Your task to perform on an android device: View the shopping cart on ebay. Search for usb-b on ebay, select the first entry, and add it to the cart. Image 0: 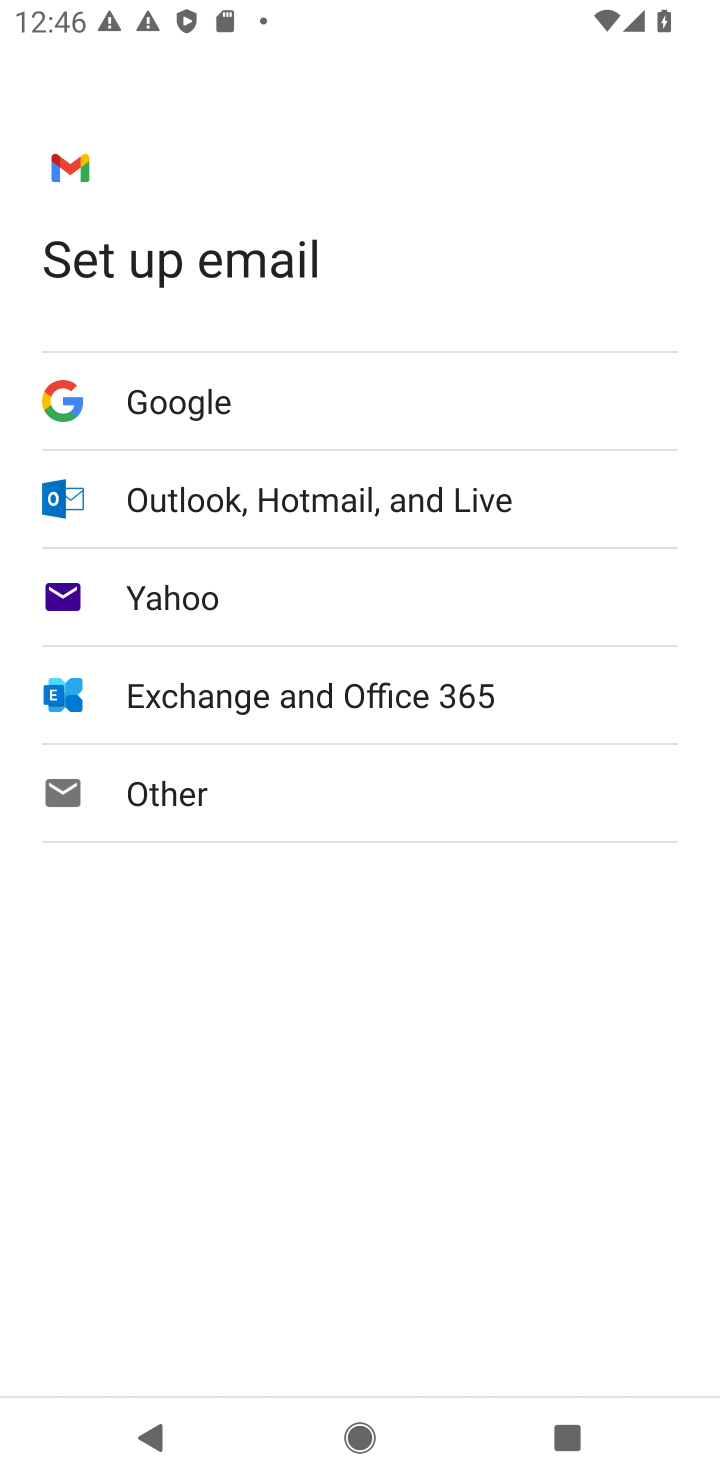
Step 0: press home button
Your task to perform on an android device: View the shopping cart on ebay. Search for usb-b on ebay, select the first entry, and add it to the cart. Image 1: 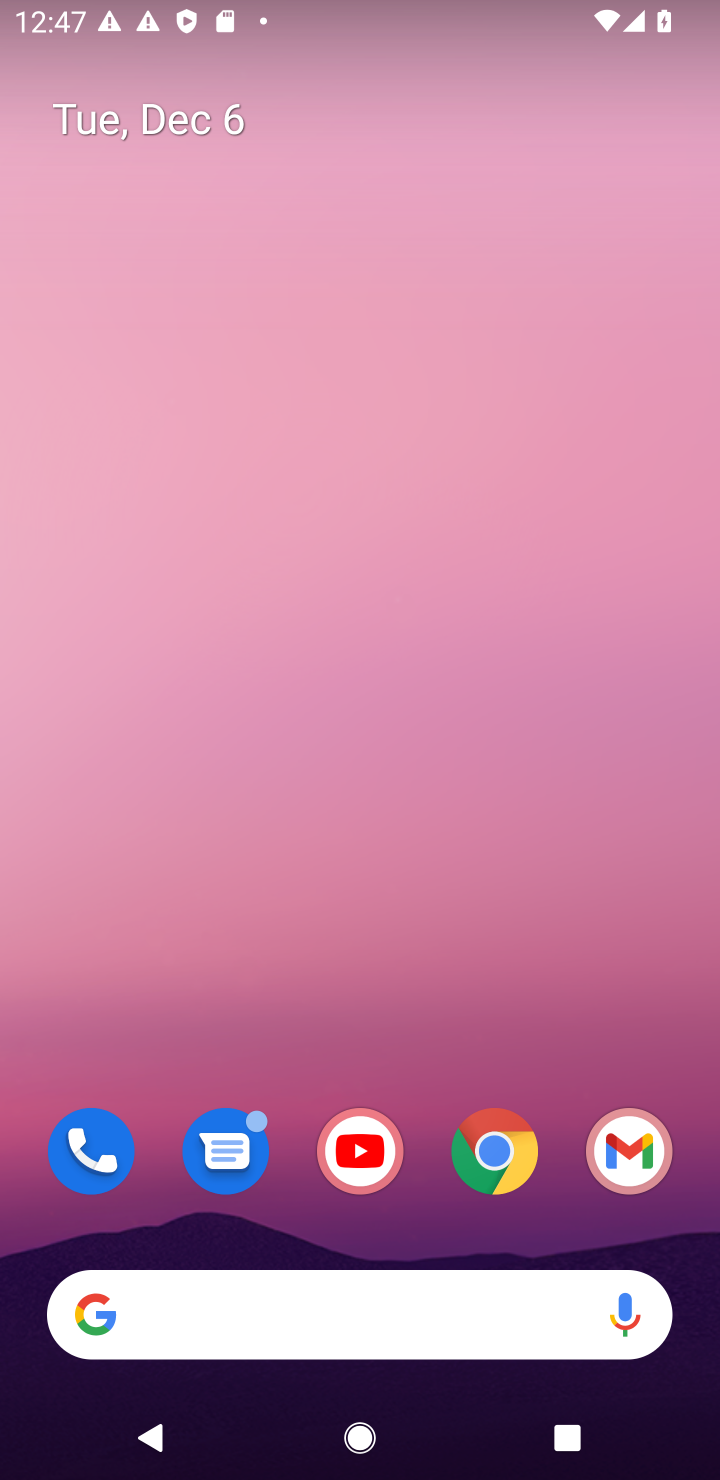
Step 1: click (506, 1157)
Your task to perform on an android device: View the shopping cart on ebay. Search for usb-b on ebay, select the first entry, and add it to the cart. Image 2: 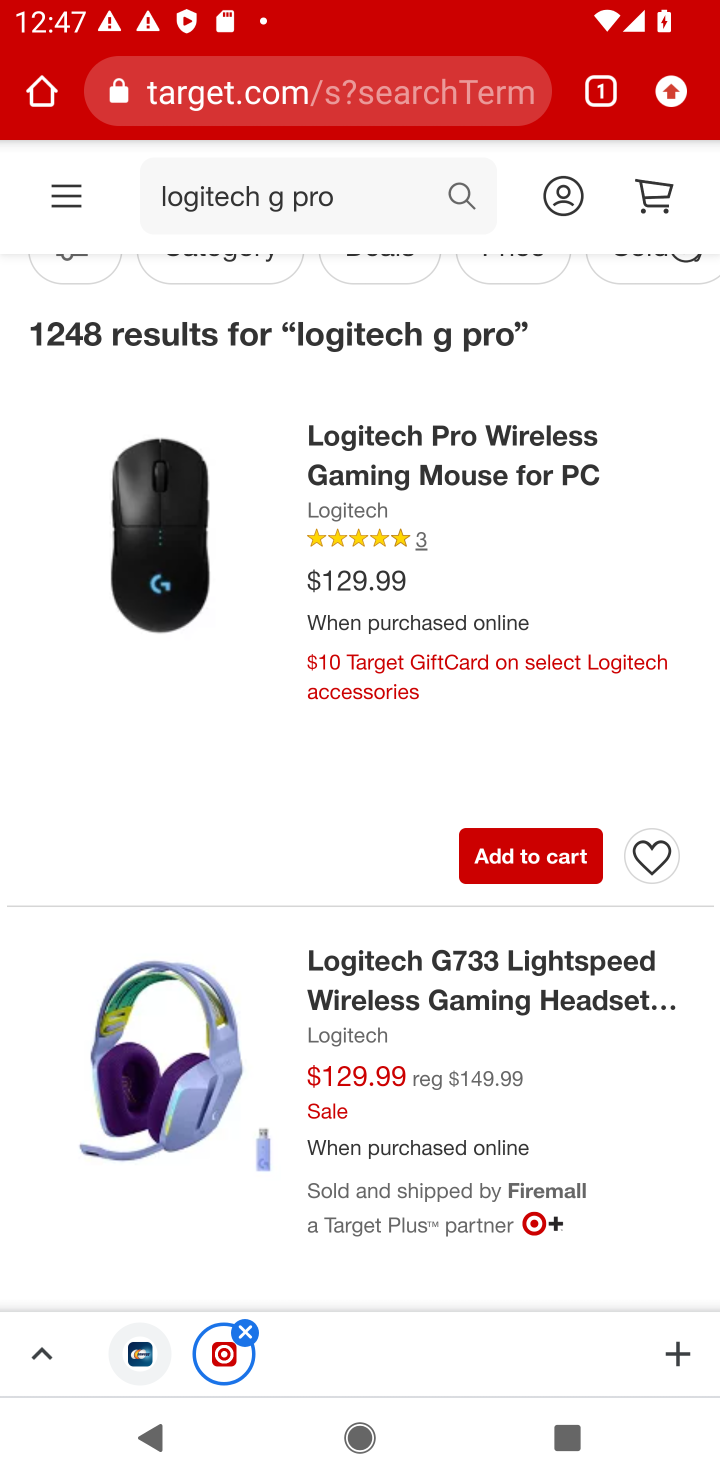
Step 2: click (285, 96)
Your task to perform on an android device: View the shopping cart on ebay. Search for usb-b on ebay, select the first entry, and add it to the cart. Image 3: 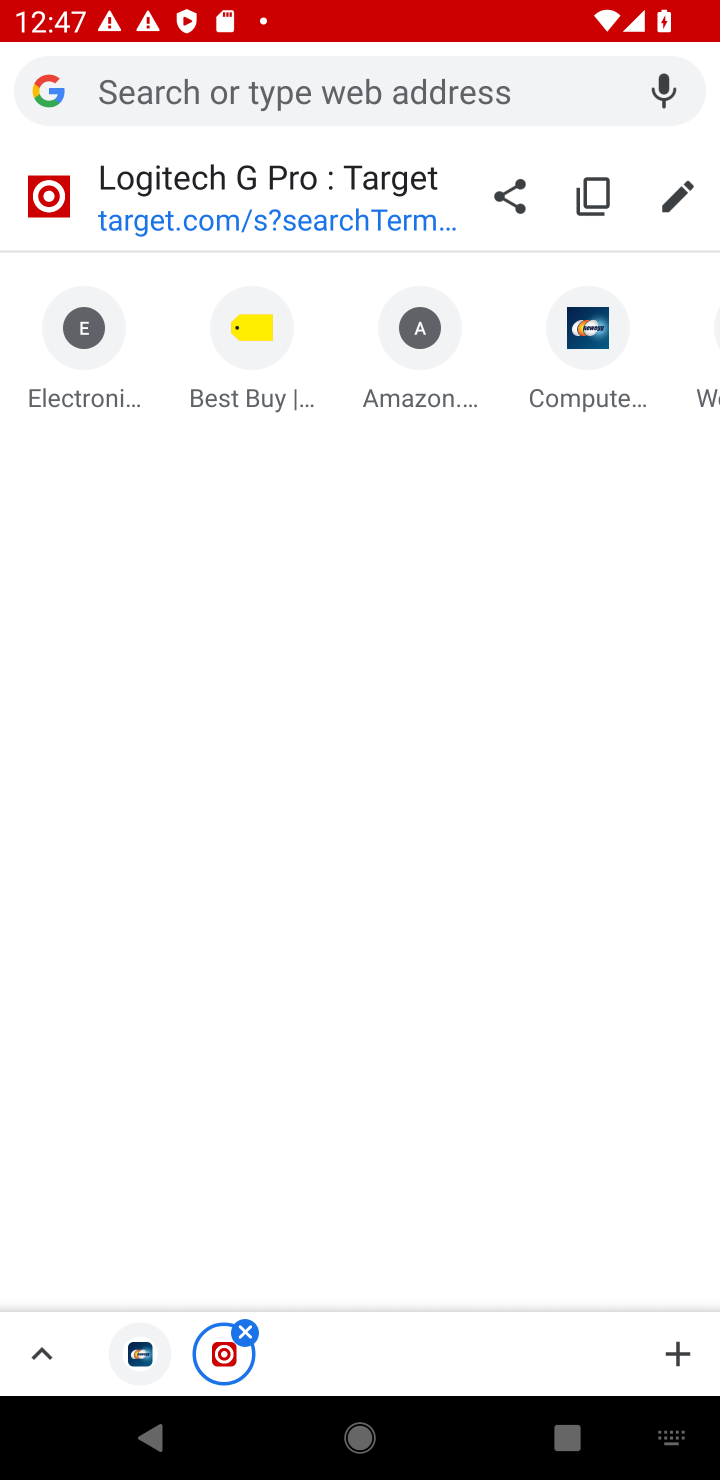
Step 3: type "ebay.com"
Your task to perform on an android device: View the shopping cart on ebay. Search for usb-b on ebay, select the first entry, and add it to the cart. Image 4: 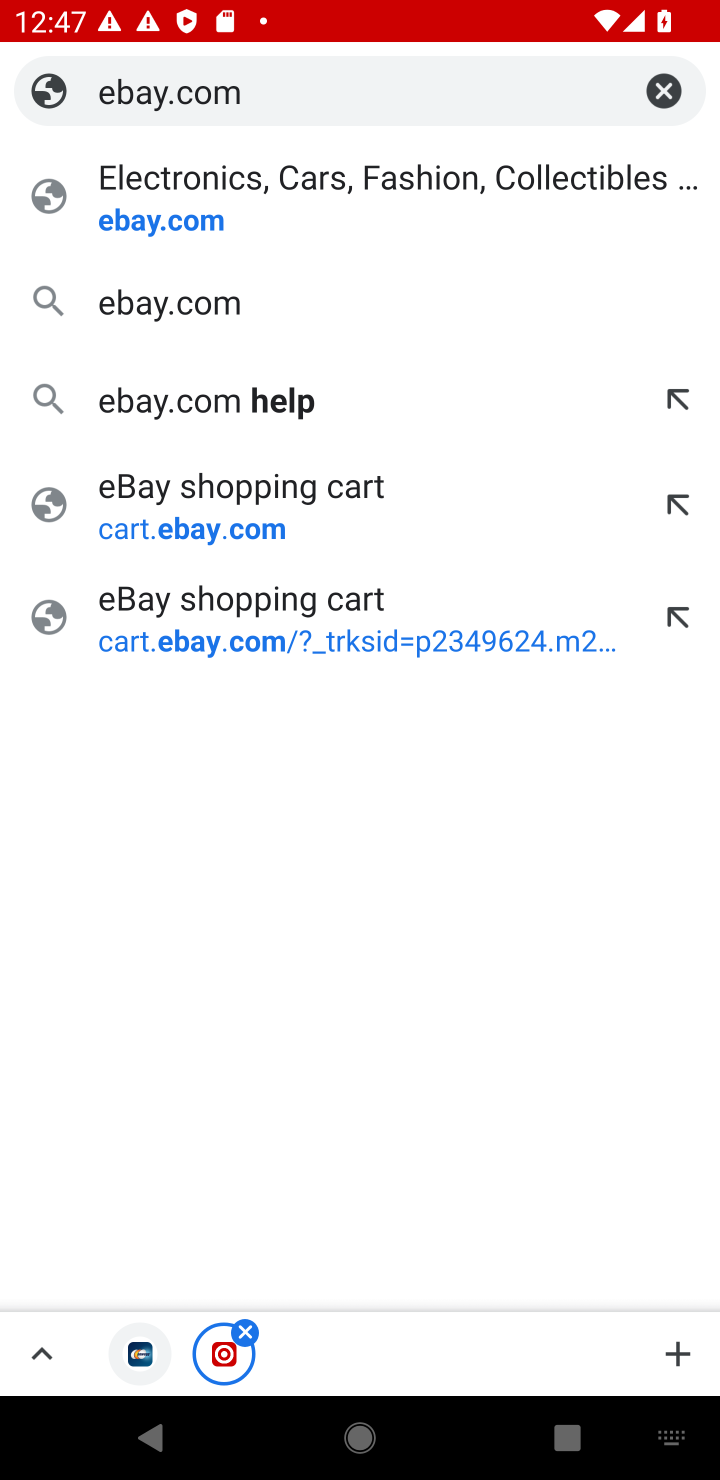
Step 4: click (173, 220)
Your task to perform on an android device: View the shopping cart on ebay. Search for usb-b on ebay, select the first entry, and add it to the cart. Image 5: 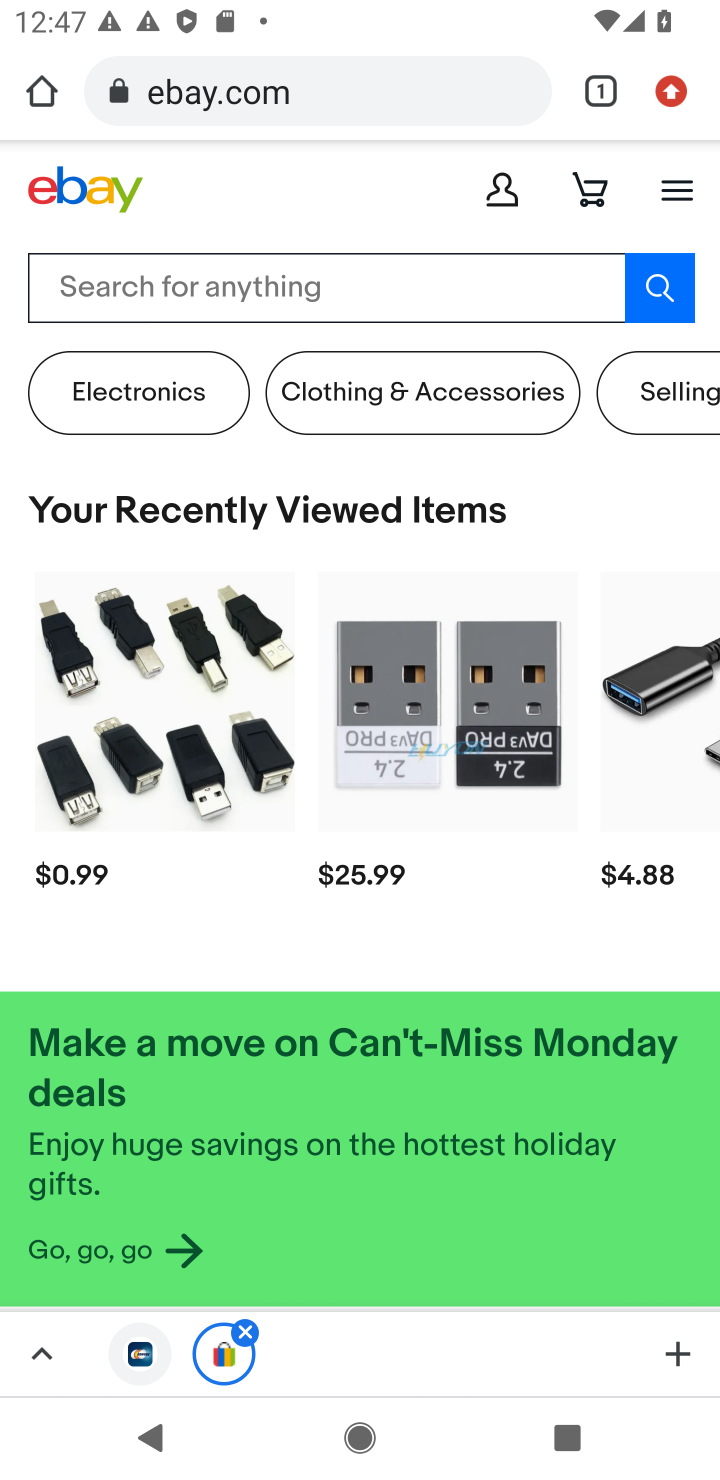
Step 5: click (592, 190)
Your task to perform on an android device: View the shopping cart on ebay. Search for usb-b on ebay, select the first entry, and add it to the cart. Image 6: 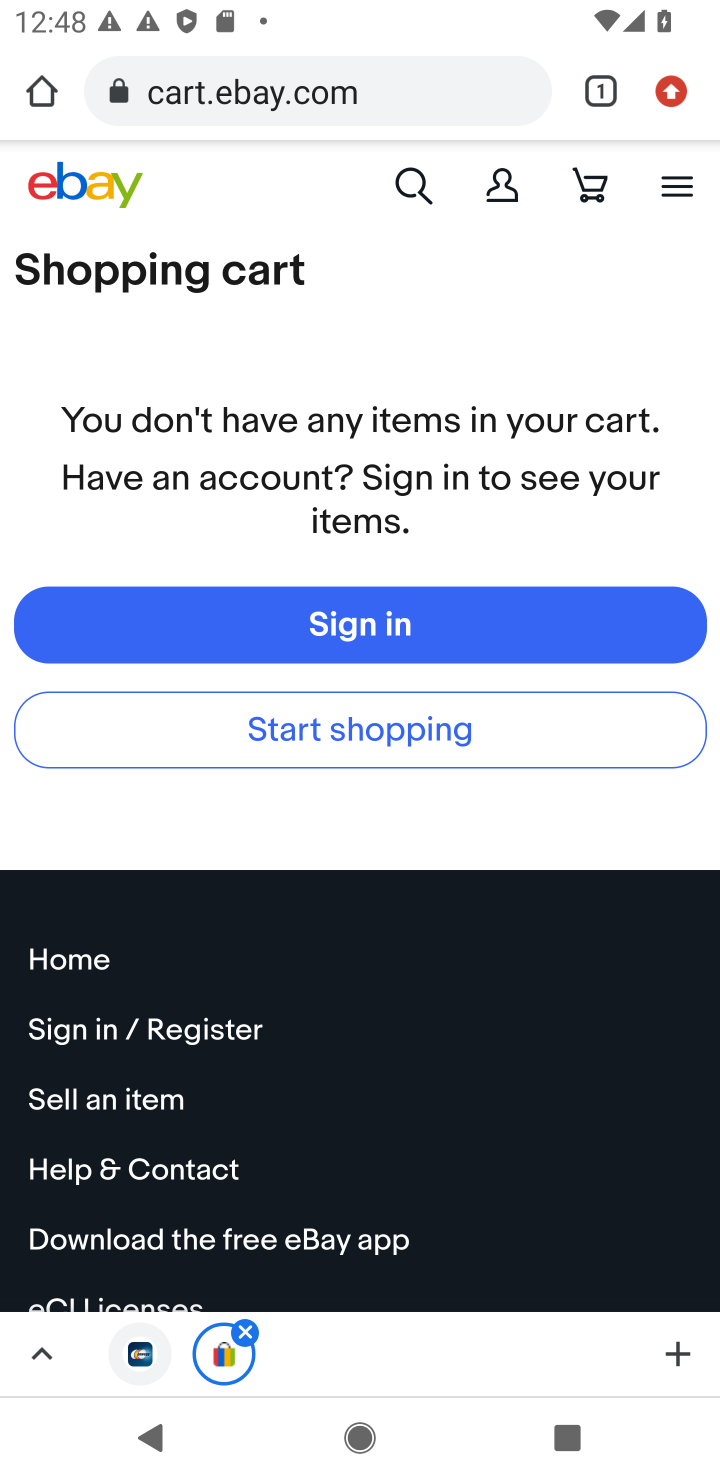
Step 6: click (406, 192)
Your task to perform on an android device: View the shopping cart on ebay. Search for usb-b on ebay, select the first entry, and add it to the cart. Image 7: 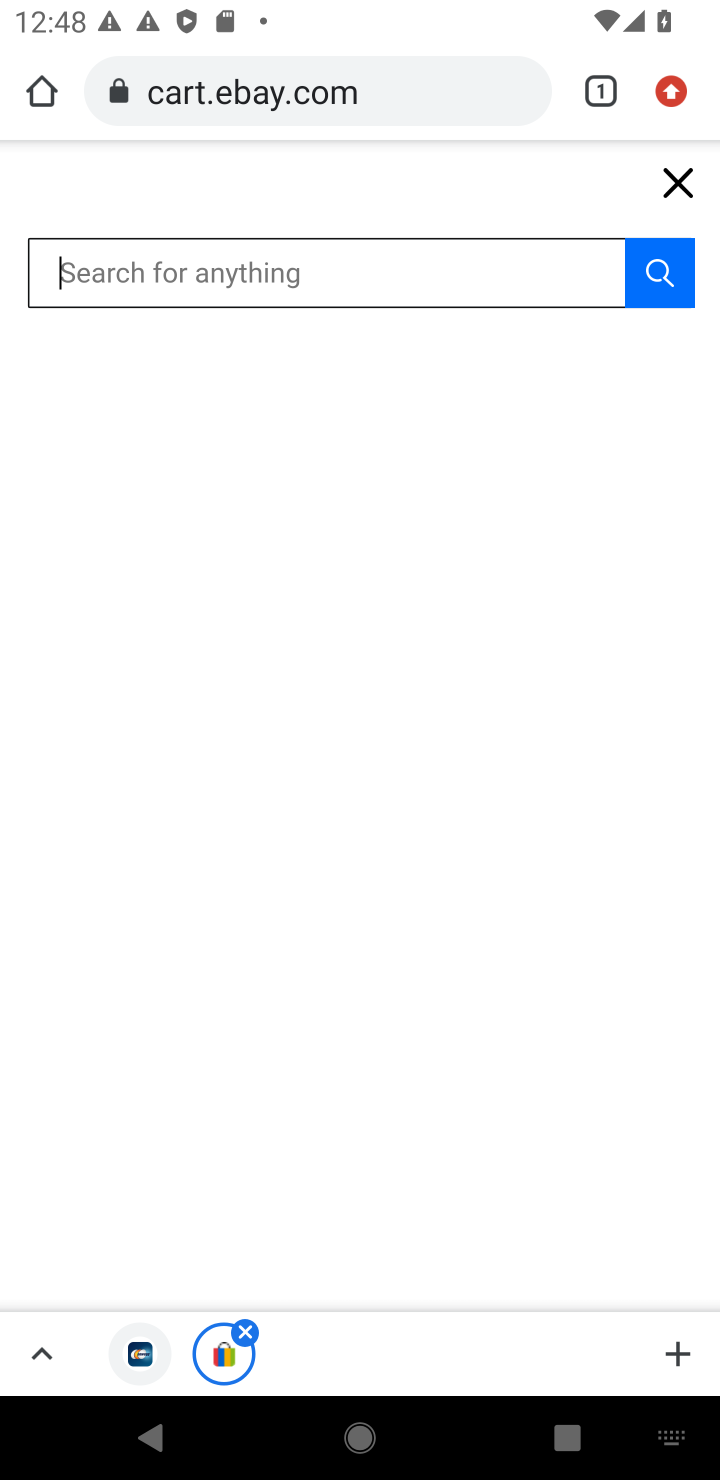
Step 7: type "usb-b"
Your task to perform on an android device: View the shopping cart on ebay. Search for usb-b on ebay, select the first entry, and add it to the cart. Image 8: 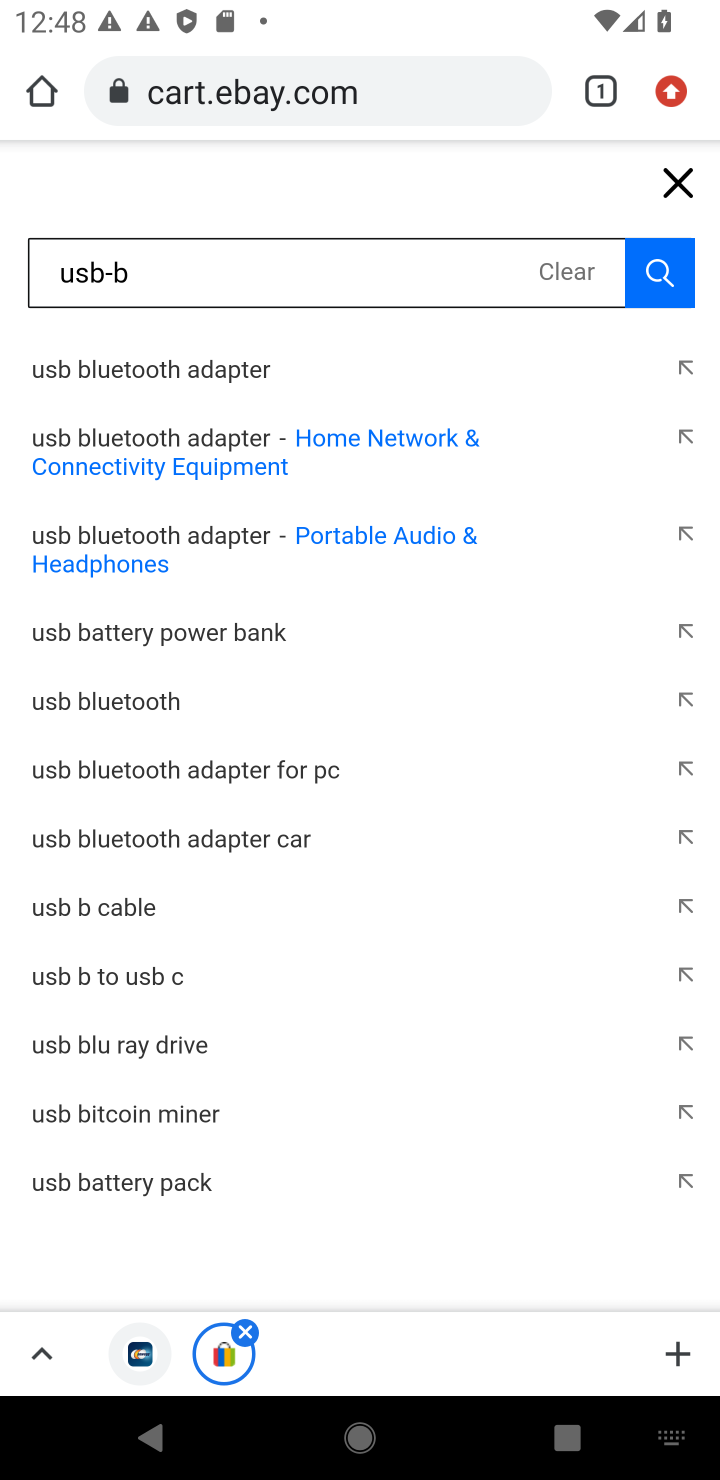
Step 8: click (676, 289)
Your task to perform on an android device: View the shopping cart on ebay. Search for usb-b on ebay, select the first entry, and add it to the cart. Image 9: 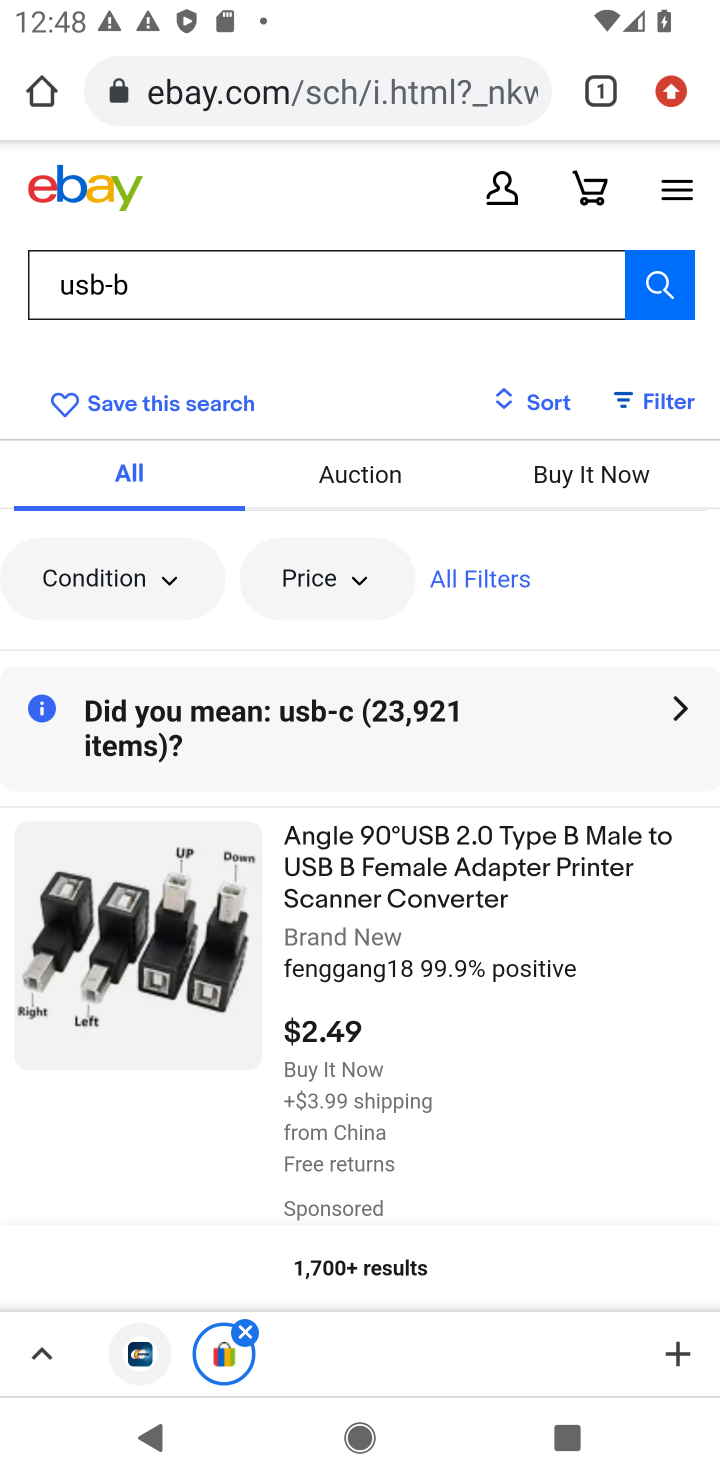
Step 9: drag from (378, 979) to (347, 601)
Your task to perform on an android device: View the shopping cart on ebay. Search for usb-b on ebay, select the first entry, and add it to the cart. Image 10: 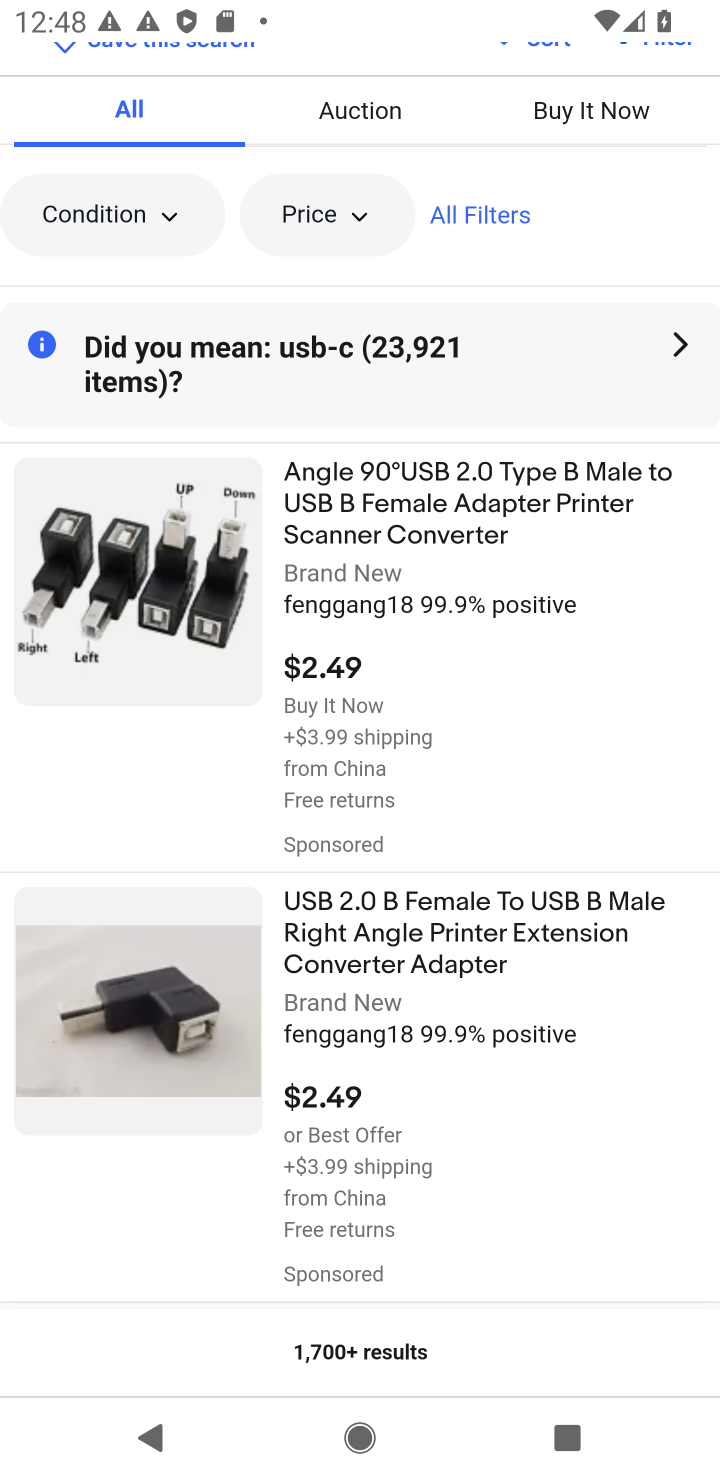
Step 10: click (345, 579)
Your task to perform on an android device: View the shopping cart on ebay. Search for usb-b on ebay, select the first entry, and add it to the cart. Image 11: 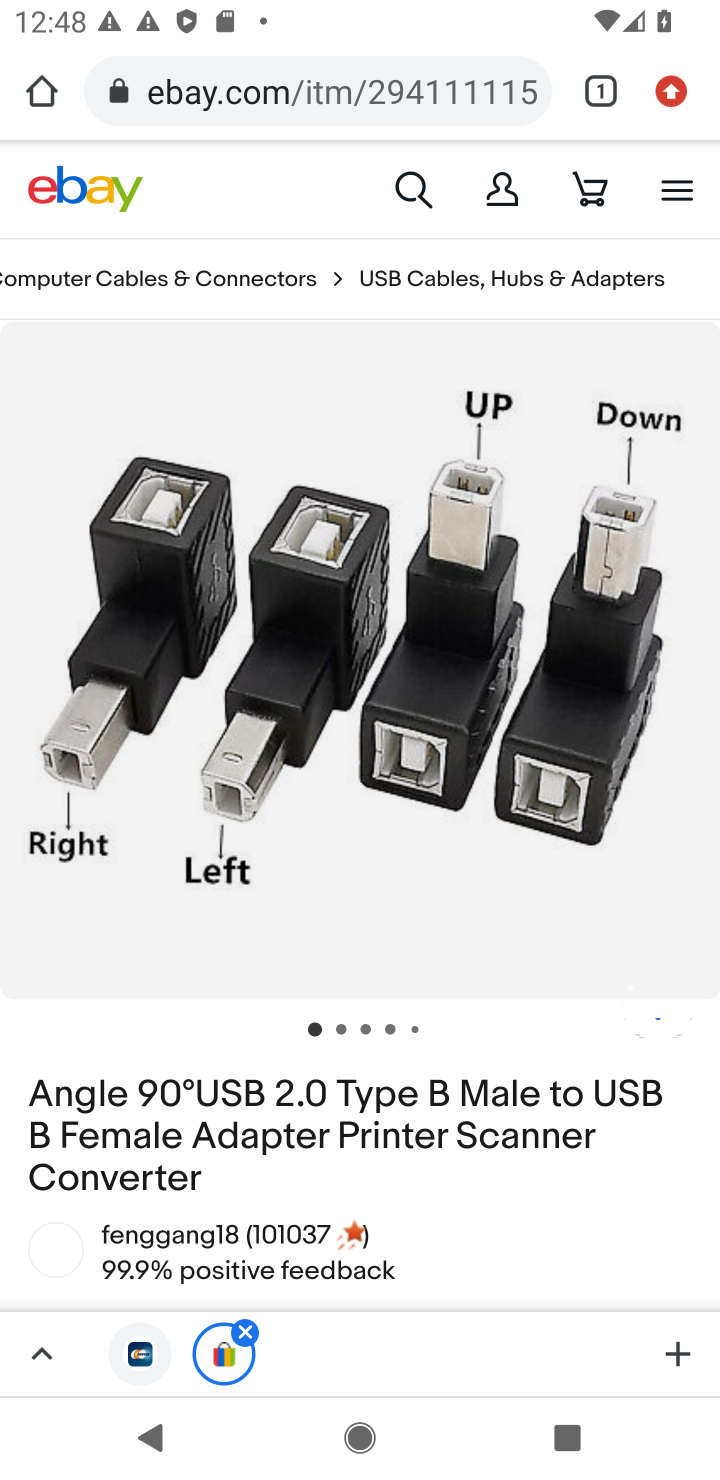
Step 11: drag from (389, 968) to (413, 519)
Your task to perform on an android device: View the shopping cart on ebay. Search for usb-b on ebay, select the first entry, and add it to the cart. Image 12: 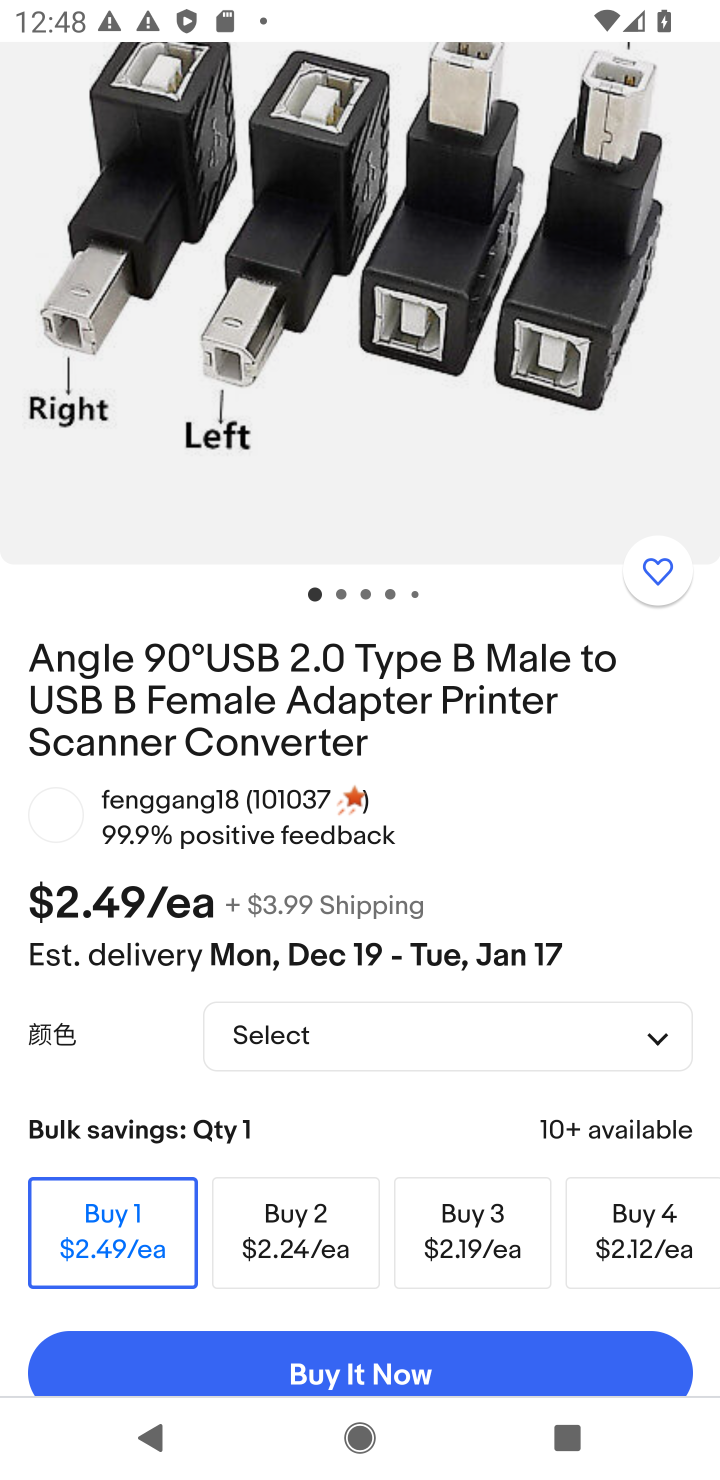
Step 12: drag from (444, 979) to (453, 514)
Your task to perform on an android device: View the shopping cart on ebay. Search for usb-b on ebay, select the first entry, and add it to the cart. Image 13: 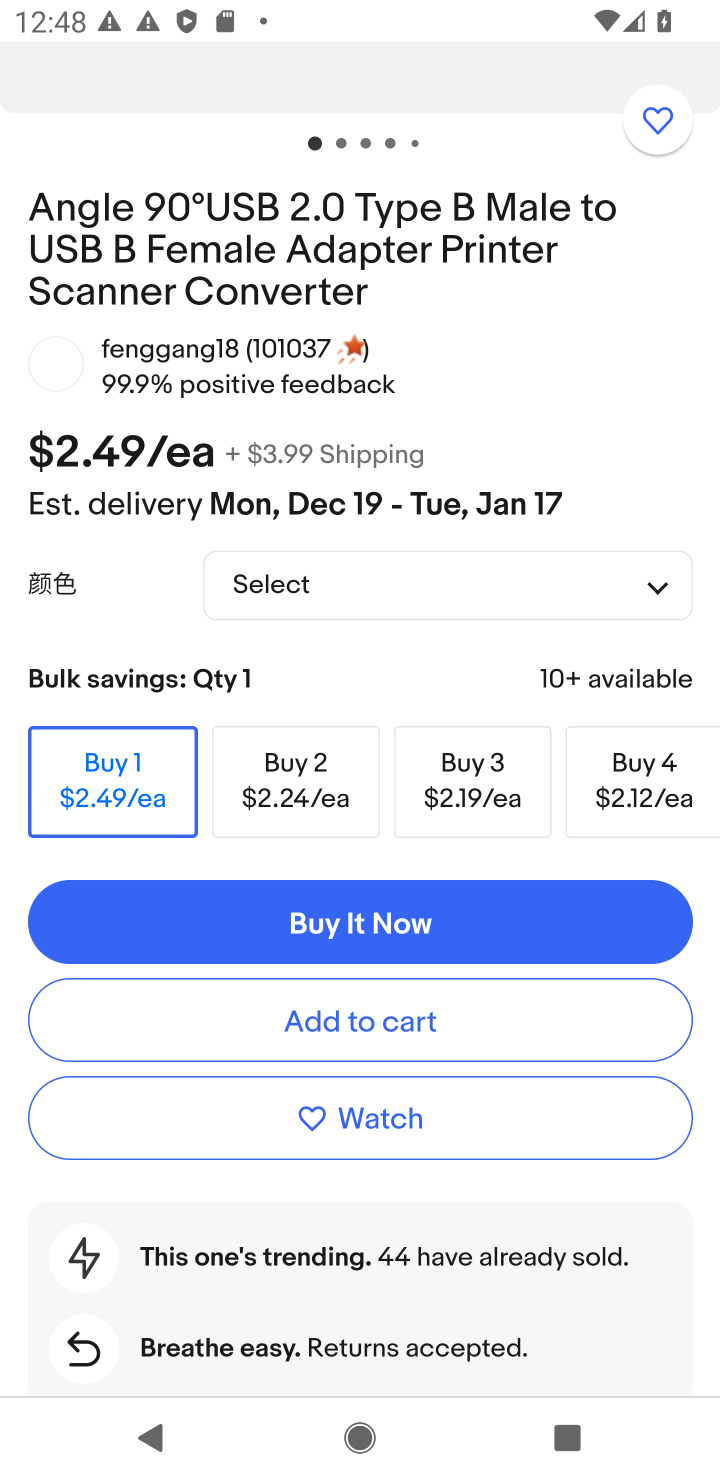
Step 13: click (337, 1037)
Your task to perform on an android device: View the shopping cart on ebay. Search for usb-b on ebay, select the first entry, and add it to the cart. Image 14: 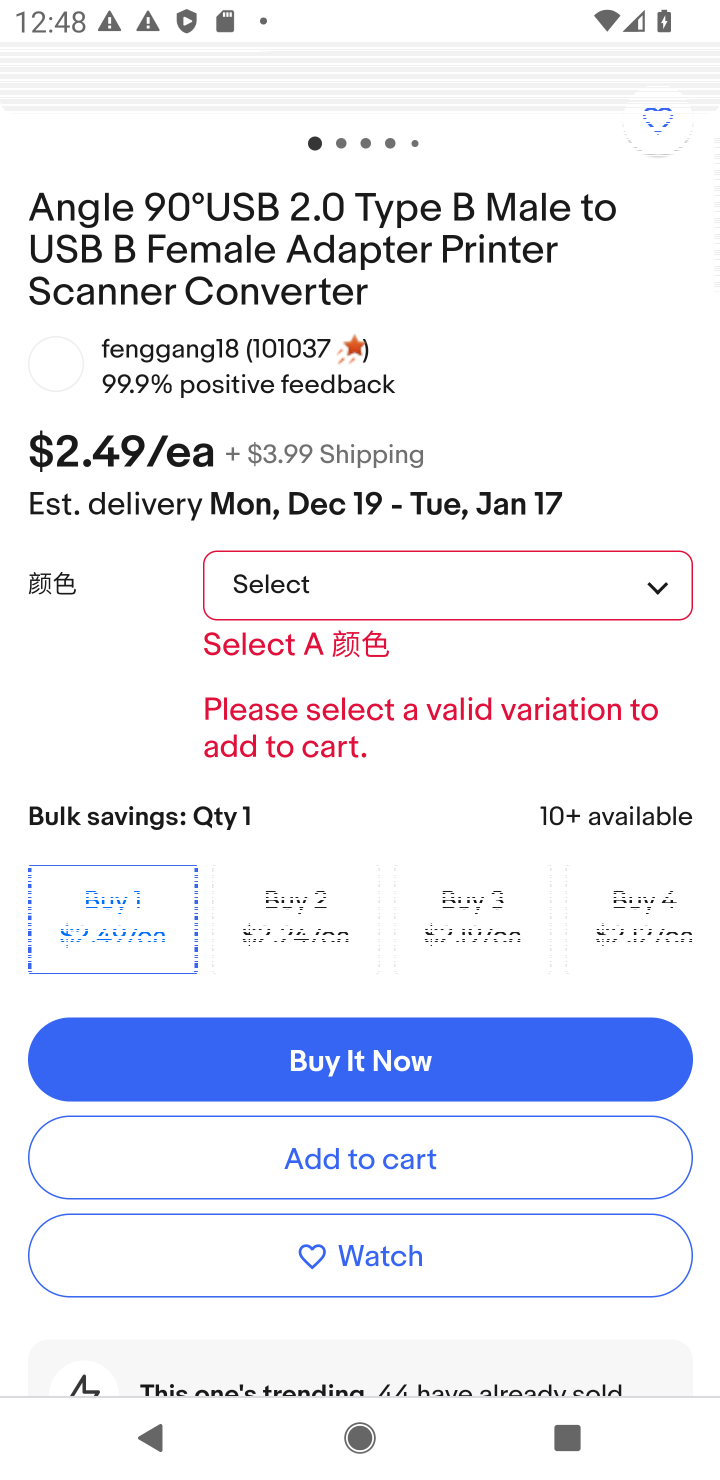
Step 14: click (664, 585)
Your task to perform on an android device: View the shopping cart on ebay. Search for usb-b on ebay, select the first entry, and add it to the cart. Image 15: 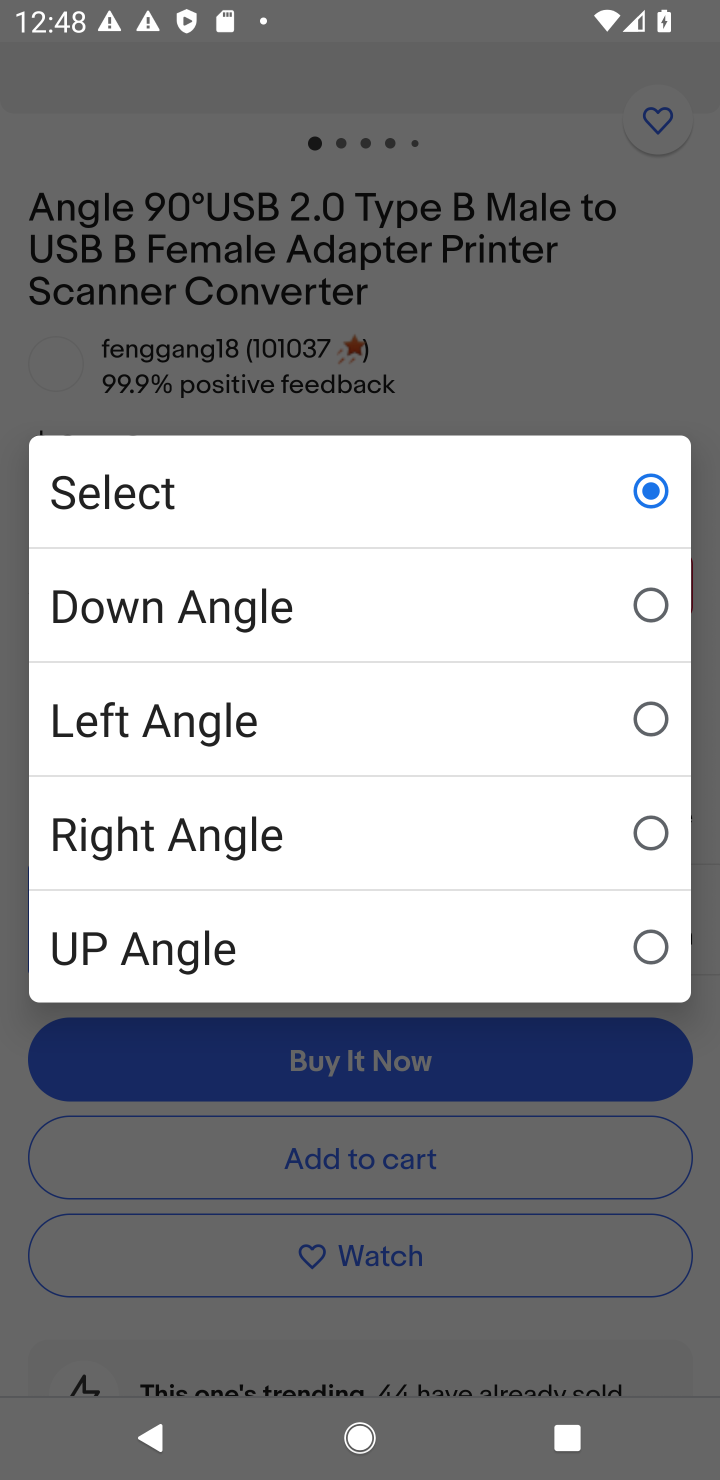
Step 15: click (221, 613)
Your task to perform on an android device: View the shopping cart on ebay. Search for usb-b on ebay, select the first entry, and add it to the cart. Image 16: 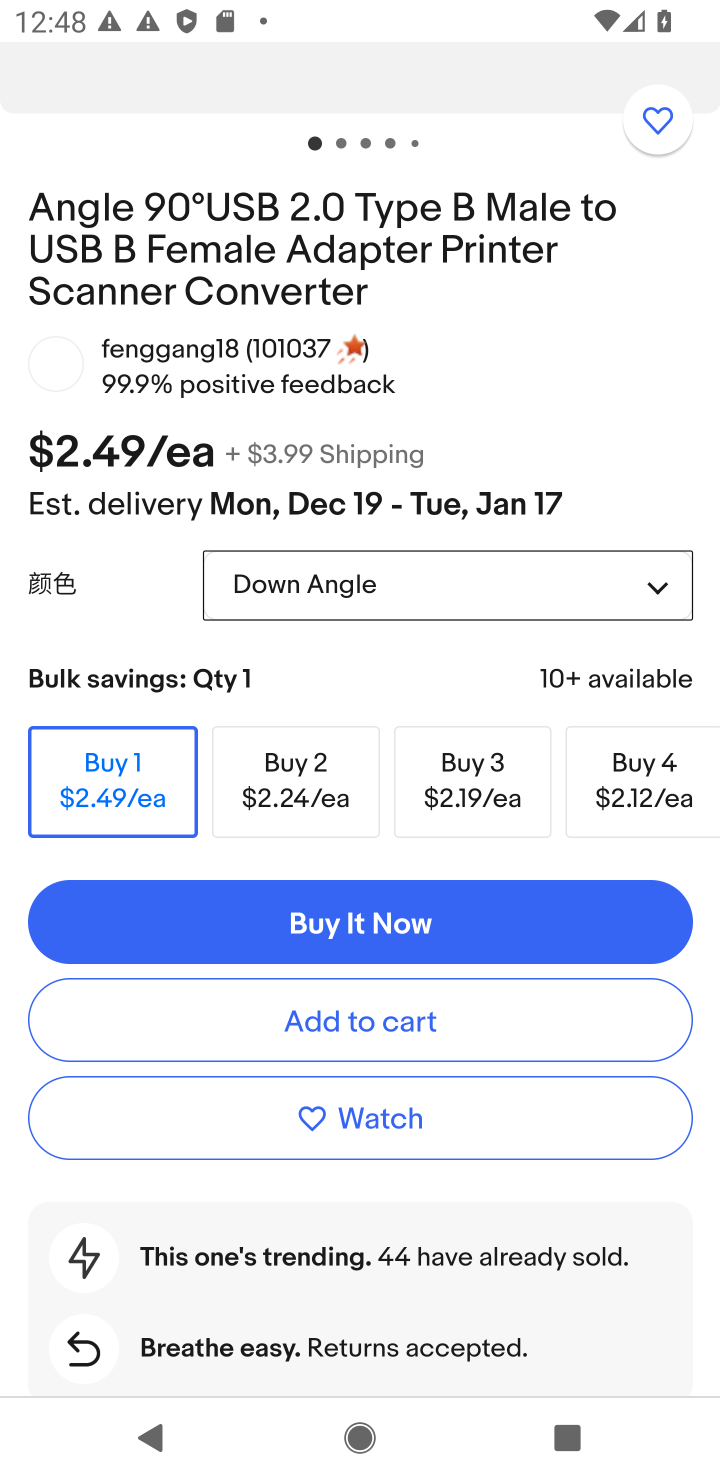
Step 16: click (306, 1040)
Your task to perform on an android device: View the shopping cart on ebay. Search for usb-b on ebay, select the first entry, and add it to the cart. Image 17: 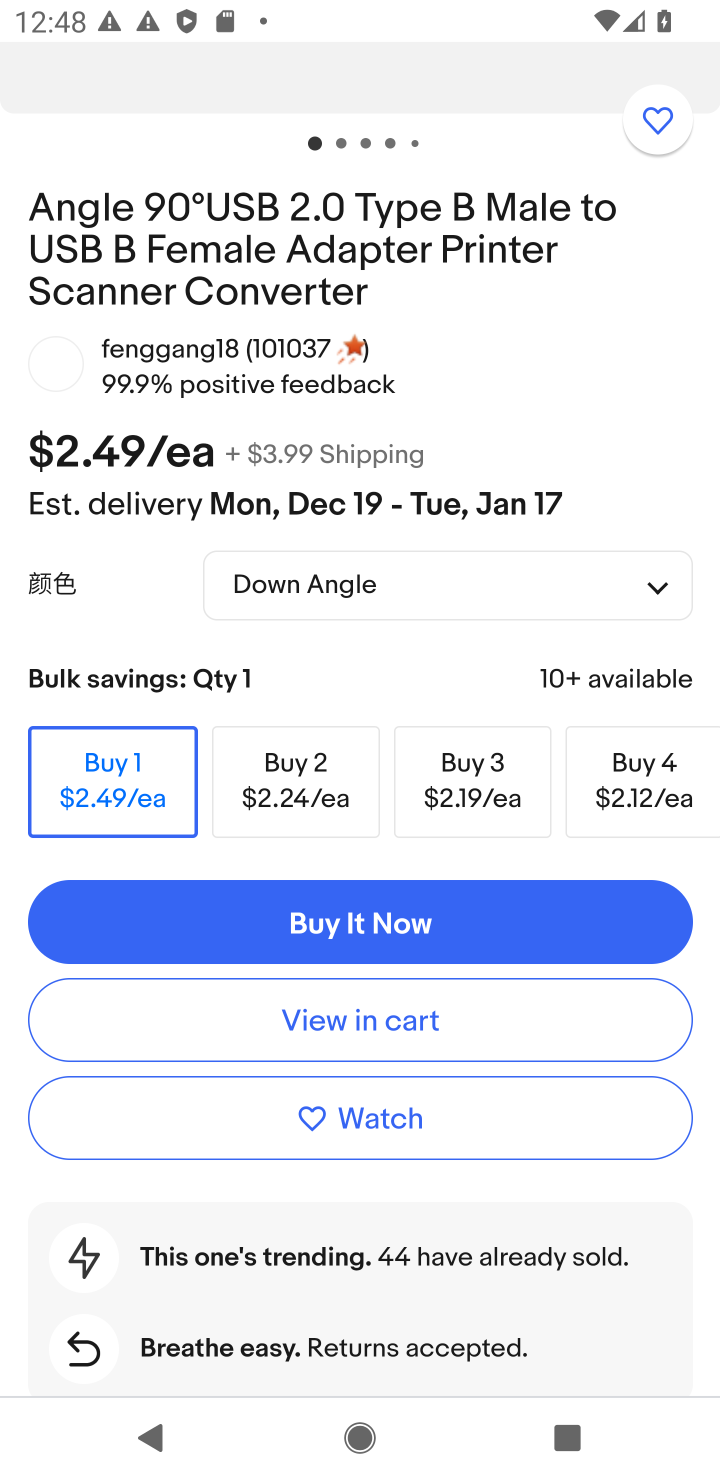
Step 17: task complete